Your task to perform on an android device: open wifi settings Image 0: 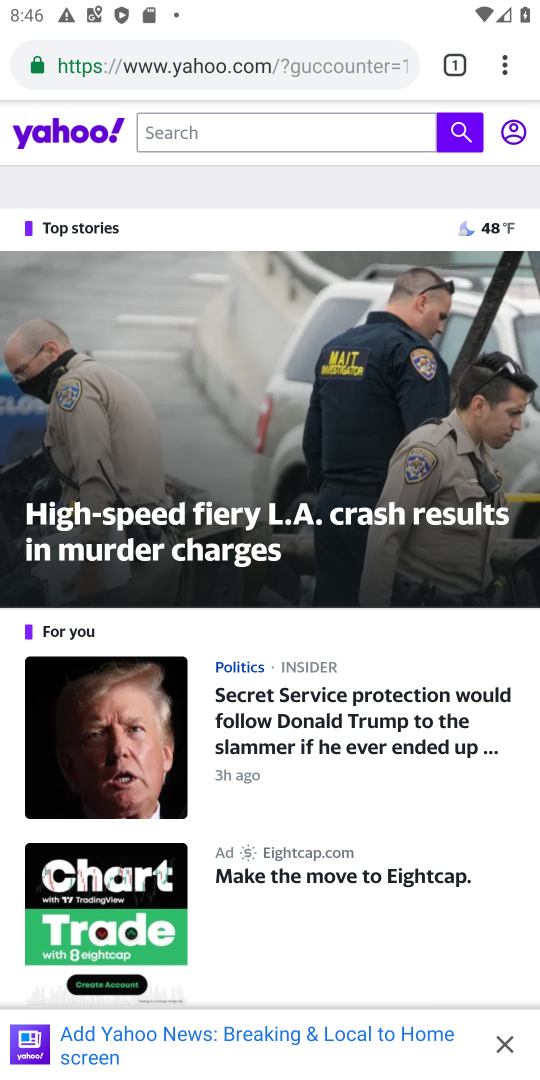
Step 0: press home button
Your task to perform on an android device: open wifi settings Image 1: 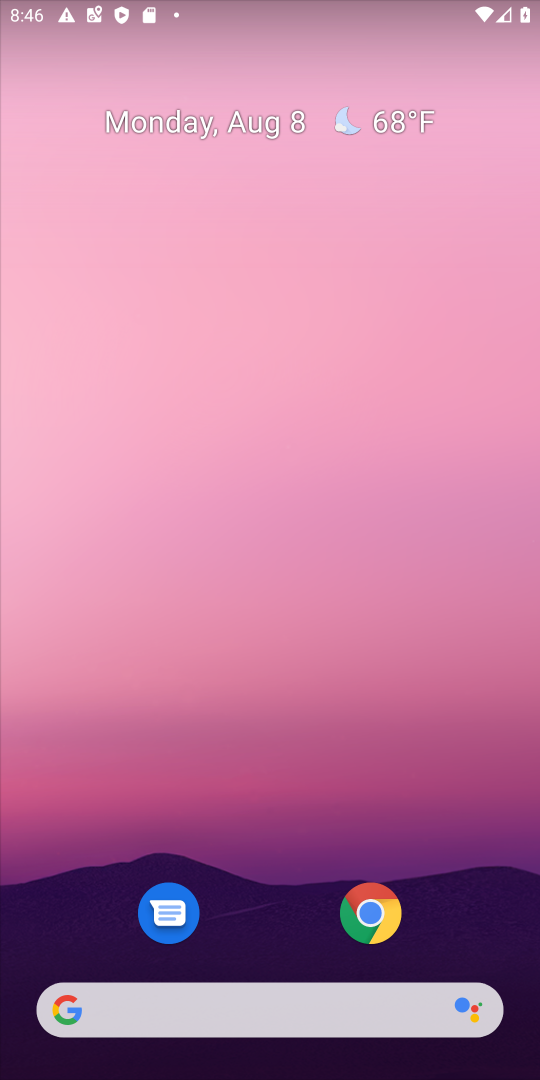
Step 1: drag from (267, 675) to (320, 215)
Your task to perform on an android device: open wifi settings Image 2: 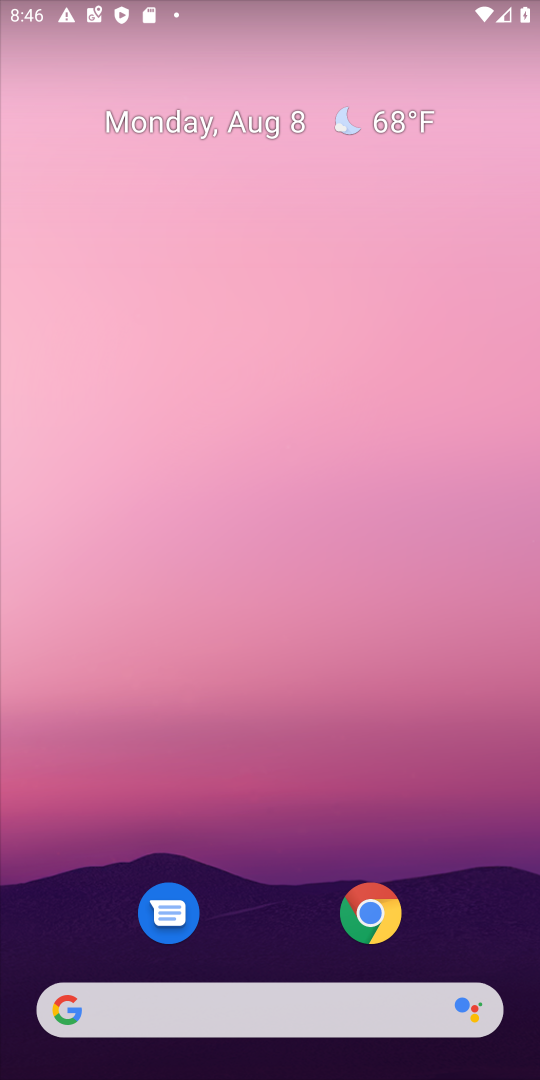
Step 2: drag from (193, 1013) to (290, 218)
Your task to perform on an android device: open wifi settings Image 3: 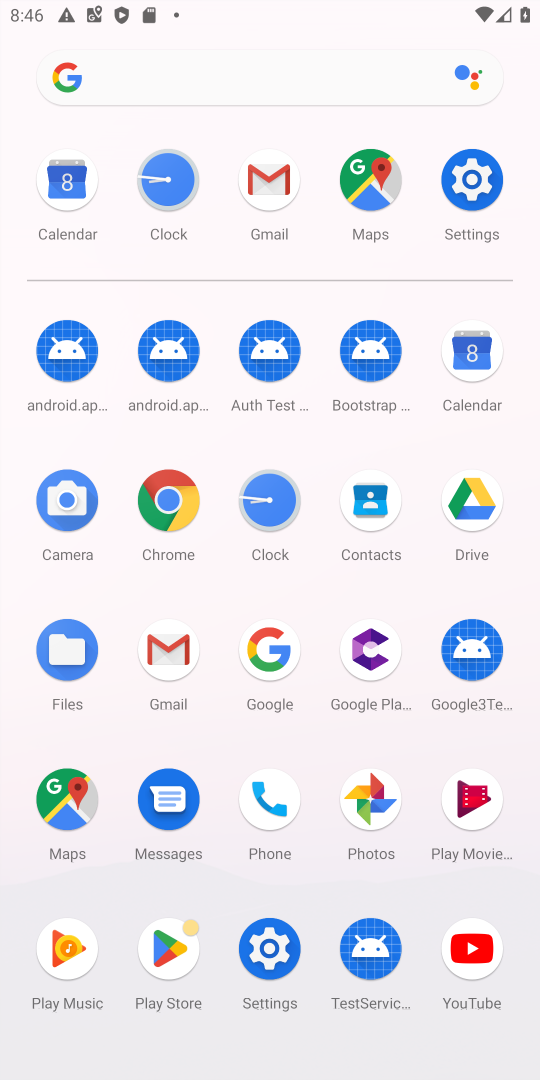
Step 3: click (474, 182)
Your task to perform on an android device: open wifi settings Image 4: 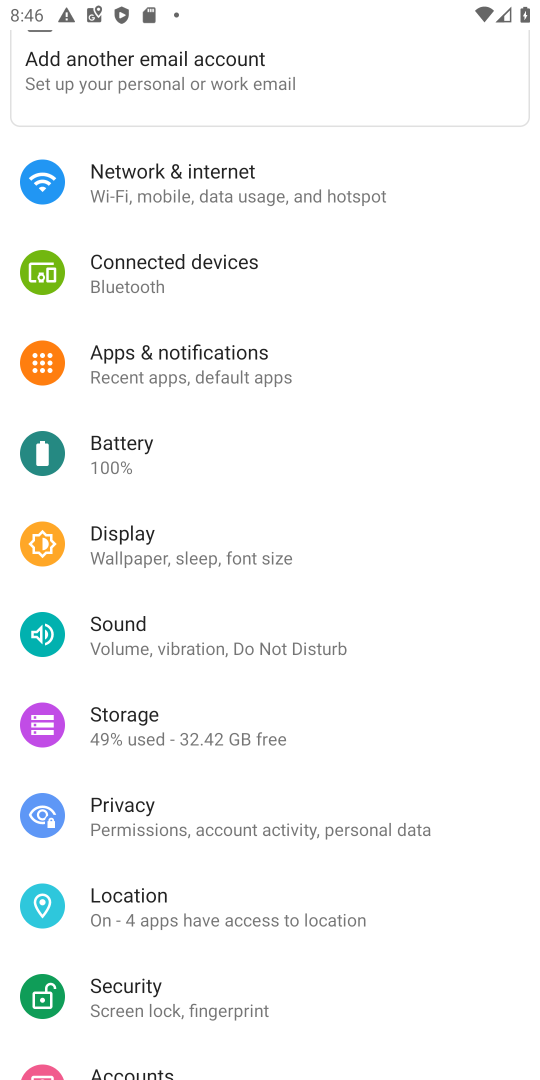
Step 4: click (215, 186)
Your task to perform on an android device: open wifi settings Image 5: 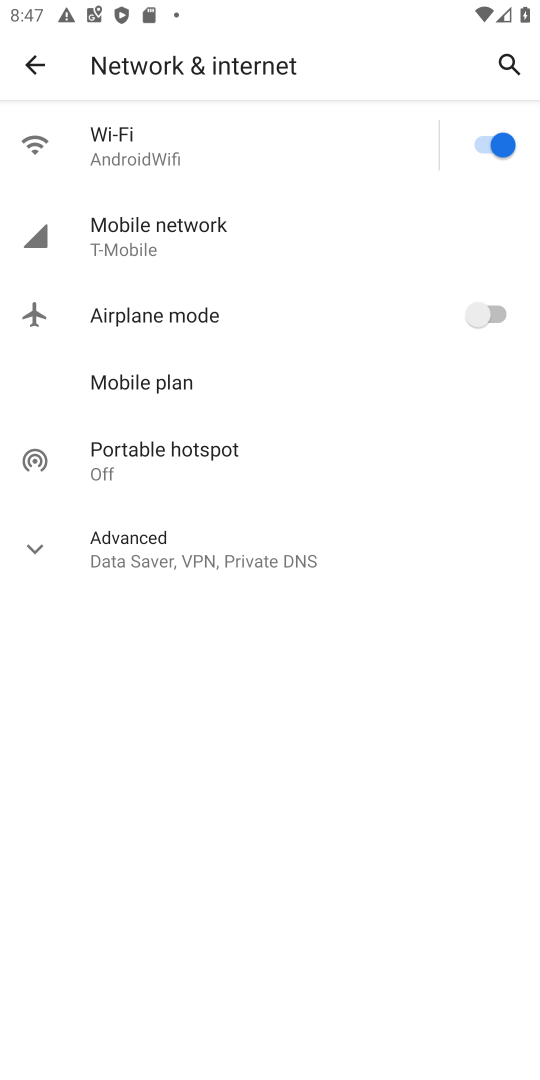
Step 5: click (150, 155)
Your task to perform on an android device: open wifi settings Image 6: 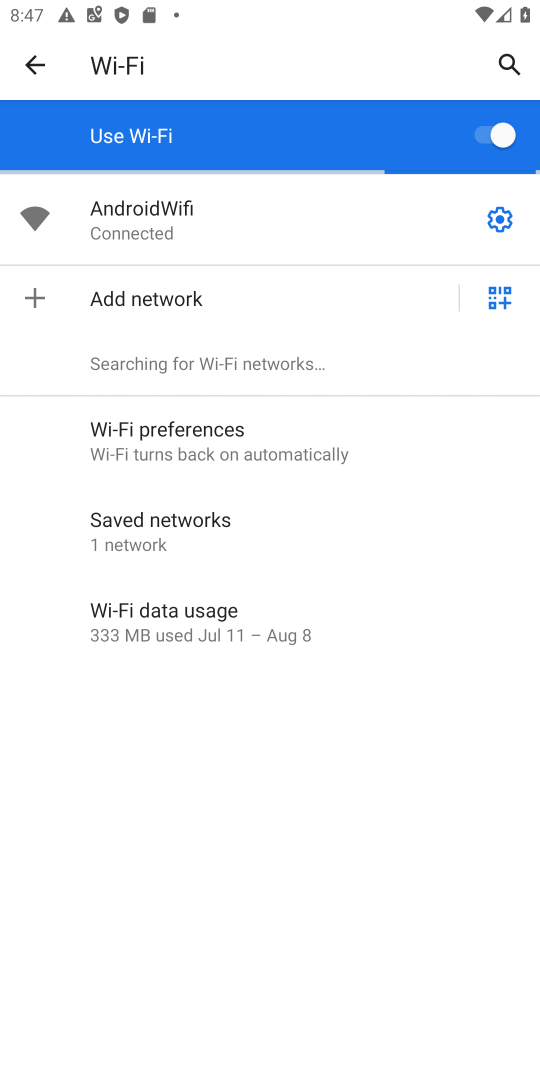
Step 6: click (494, 216)
Your task to perform on an android device: open wifi settings Image 7: 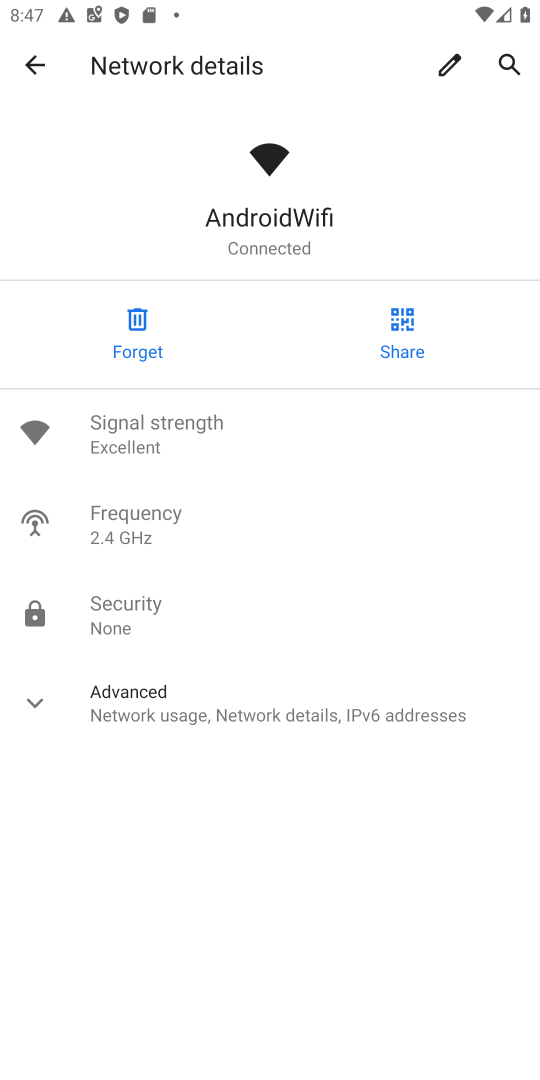
Step 7: task complete